Your task to perform on an android device: turn on the 24-hour format for clock Image 0: 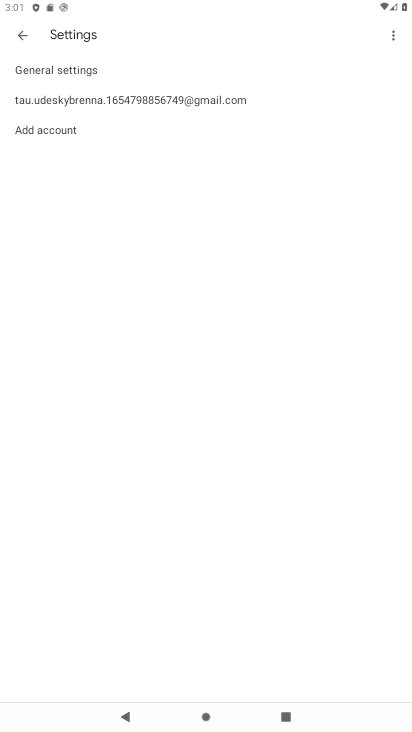
Step 0: press home button
Your task to perform on an android device: turn on the 24-hour format for clock Image 1: 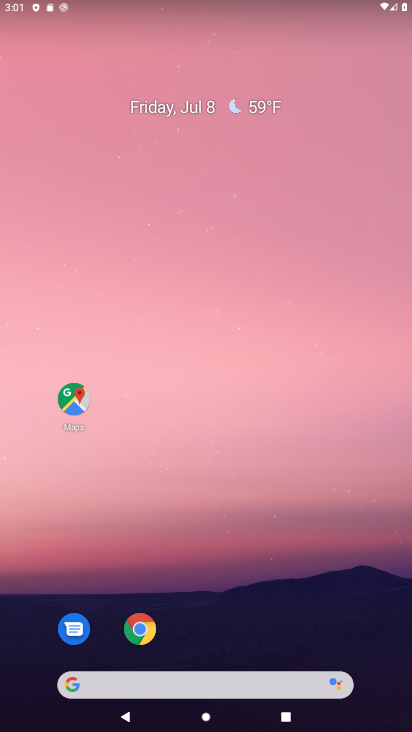
Step 1: drag from (227, 628) to (232, 79)
Your task to perform on an android device: turn on the 24-hour format for clock Image 2: 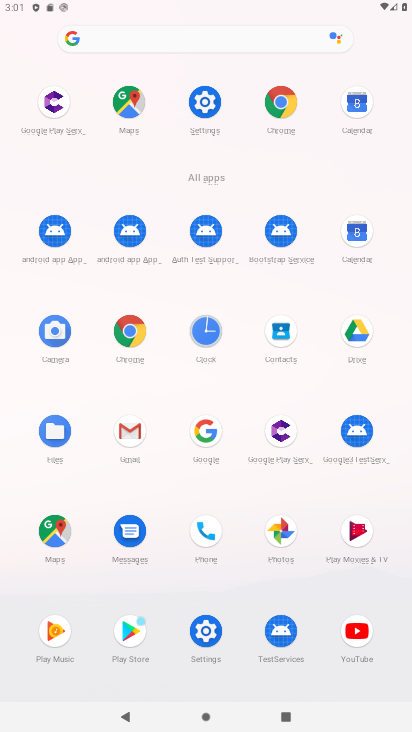
Step 2: click (210, 325)
Your task to perform on an android device: turn on the 24-hour format for clock Image 3: 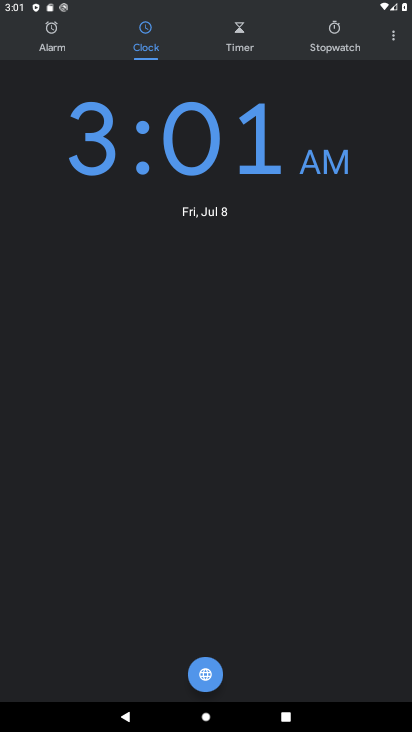
Step 3: click (392, 37)
Your task to perform on an android device: turn on the 24-hour format for clock Image 4: 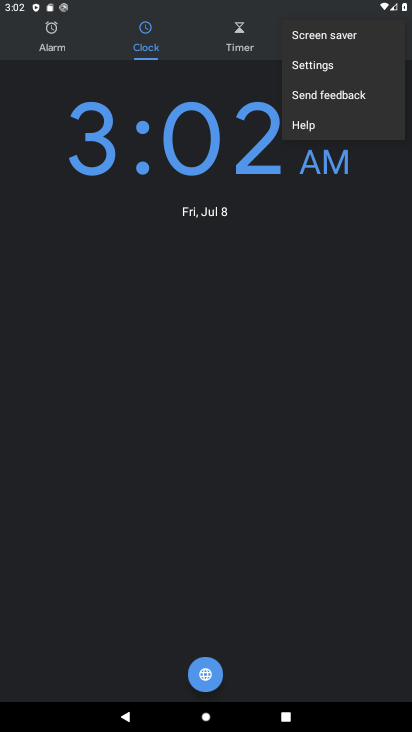
Step 4: click (328, 63)
Your task to perform on an android device: turn on the 24-hour format for clock Image 5: 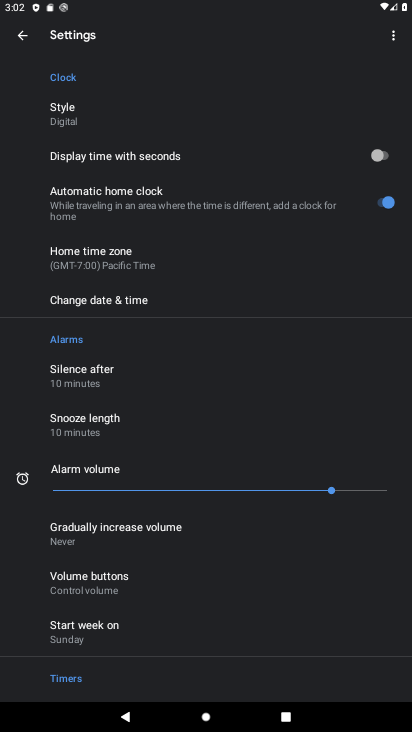
Step 5: click (161, 299)
Your task to perform on an android device: turn on the 24-hour format for clock Image 6: 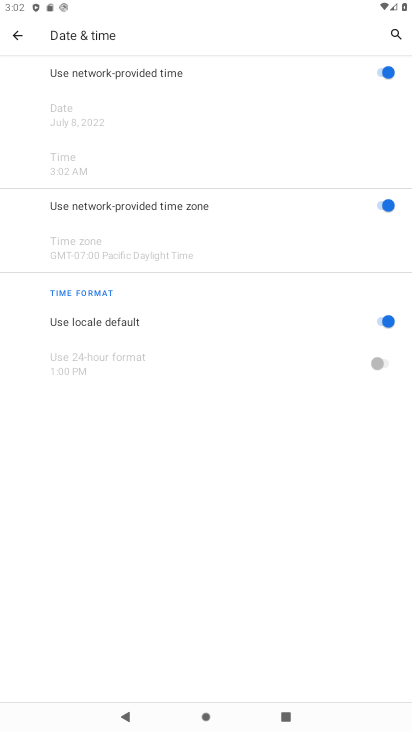
Step 6: click (380, 319)
Your task to perform on an android device: turn on the 24-hour format for clock Image 7: 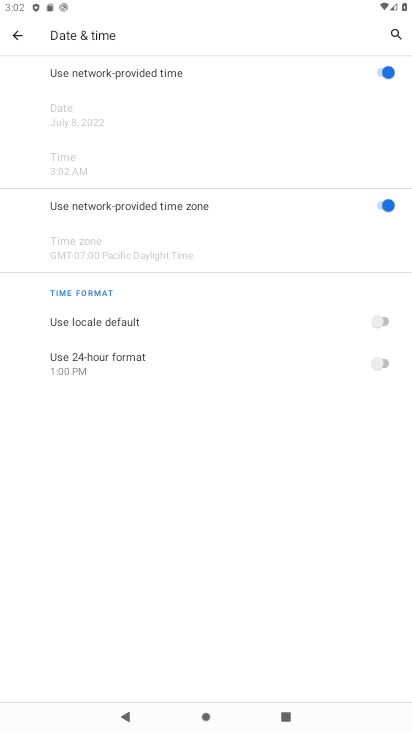
Step 7: click (373, 359)
Your task to perform on an android device: turn on the 24-hour format for clock Image 8: 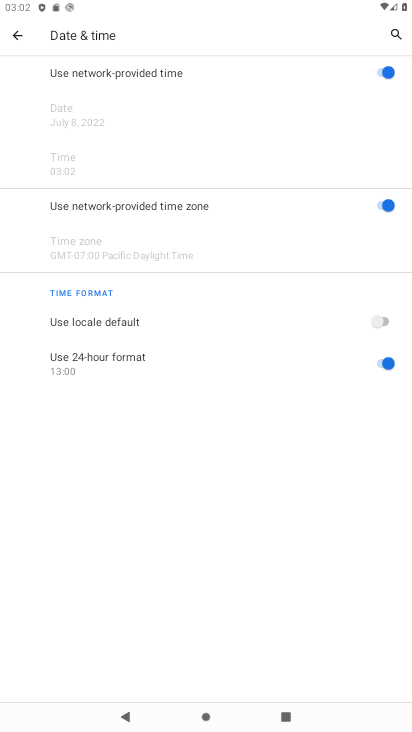
Step 8: task complete